Your task to perform on an android device: Toggle the flashlight Image 0: 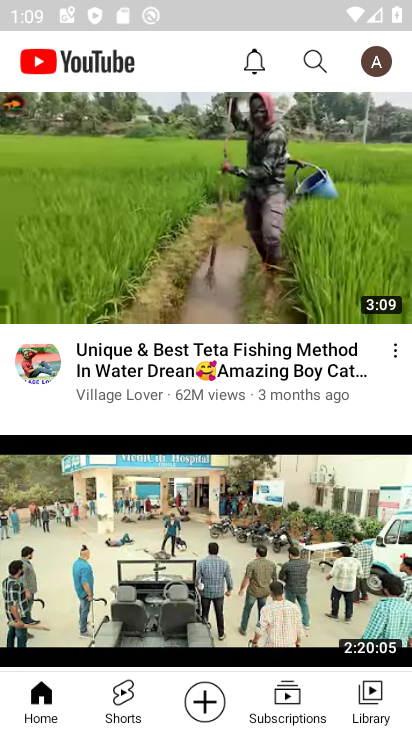
Step 0: press home button
Your task to perform on an android device: Toggle the flashlight Image 1: 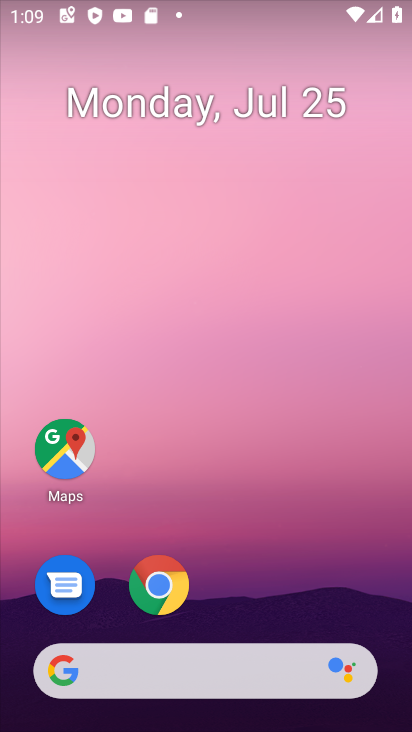
Step 1: drag from (276, 559) to (290, 12)
Your task to perform on an android device: Toggle the flashlight Image 2: 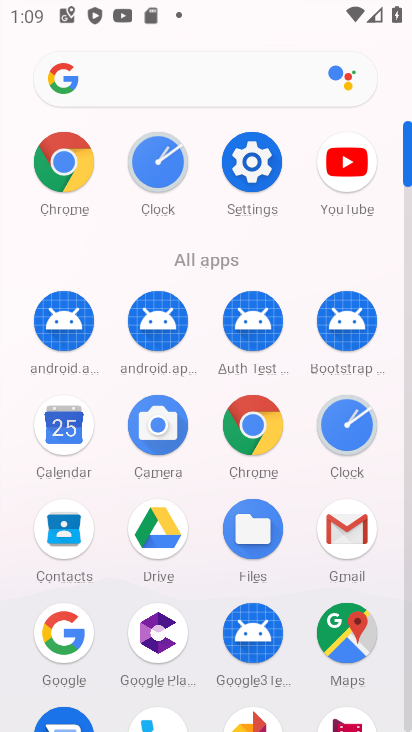
Step 2: click (261, 168)
Your task to perform on an android device: Toggle the flashlight Image 3: 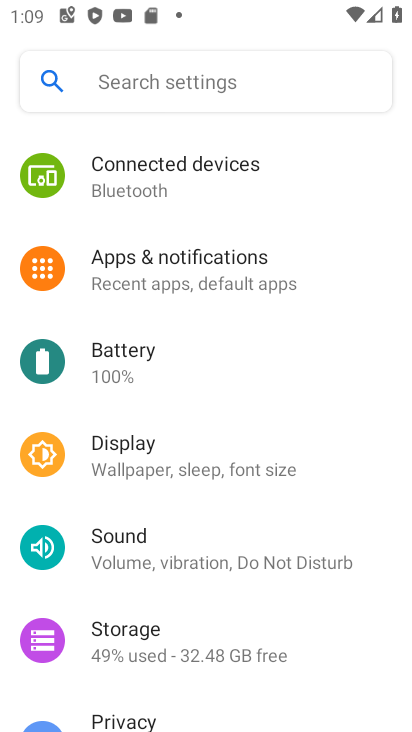
Step 3: drag from (238, 212) to (284, 637)
Your task to perform on an android device: Toggle the flashlight Image 4: 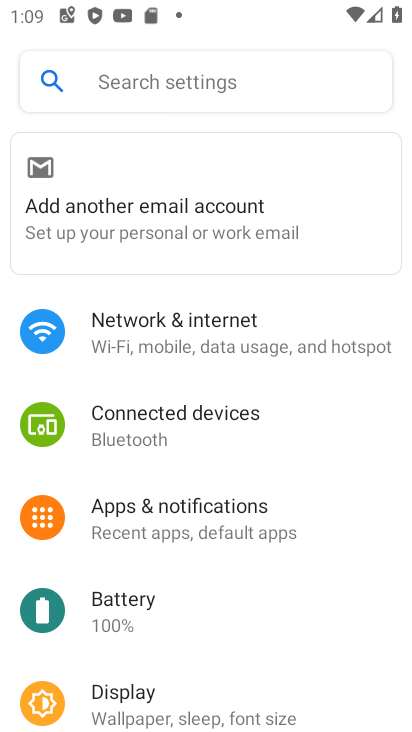
Step 4: click (275, 74)
Your task to perform on an android device: Toggle the flashlight Image 5: 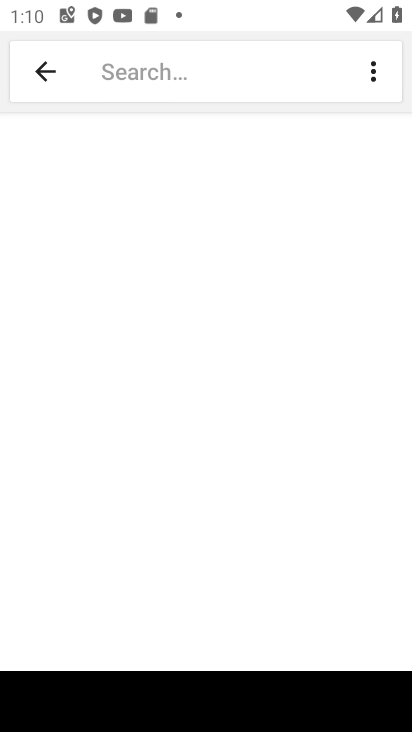
Step 5: type "Flashlight"
Your task to perform on an android device: Toggle the flashlight Image 6: 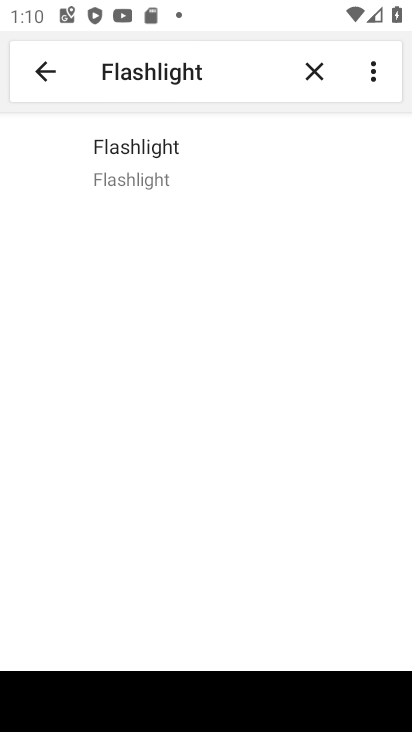
Step 6: click (156, 164)
Your task to perform on an android device: Toggle the flashlight Image 7: 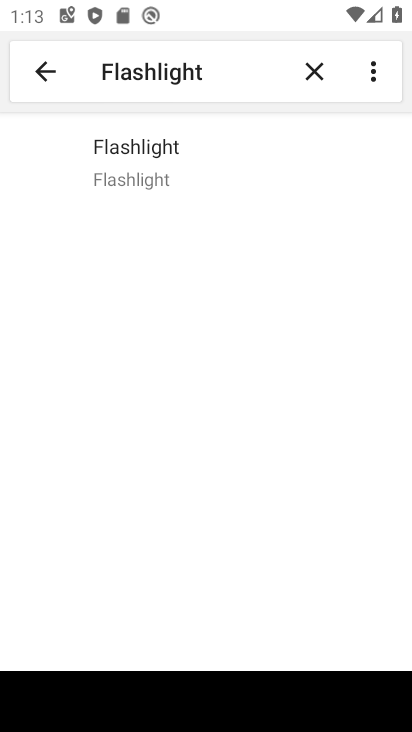
Step 7: task complete